Your task to perform on an android device: Open accessibility settings Image 0: 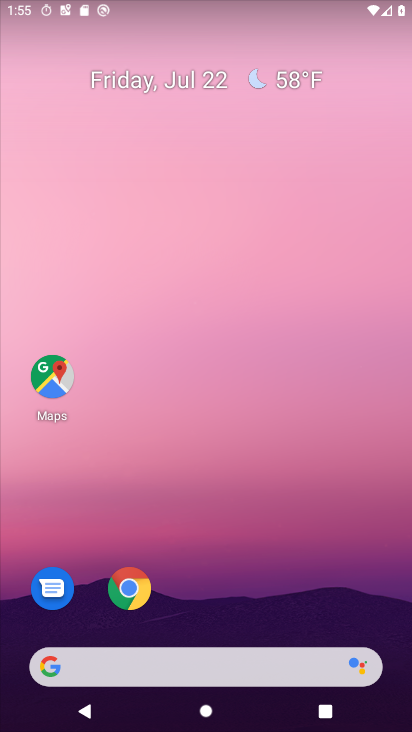
Step 0: press home button
Your task to perform on an android device: Open accessibility settings Image 1: 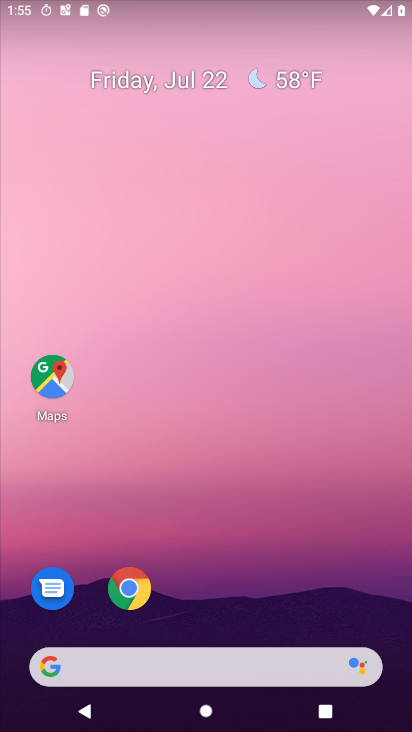
Step 1: drag from (254, 686) to (289, 317)
Your task to perform on an android device: Open accessibility settings Image 2: 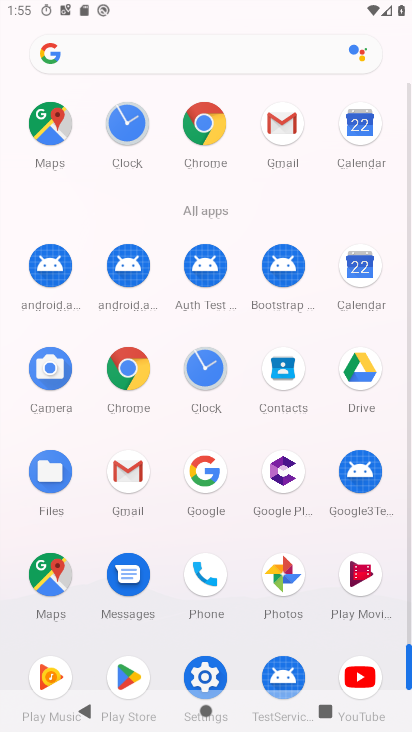
Step 2: click (198, 656)
Your task to perform on an android device: Open accessibility settings Image 3: 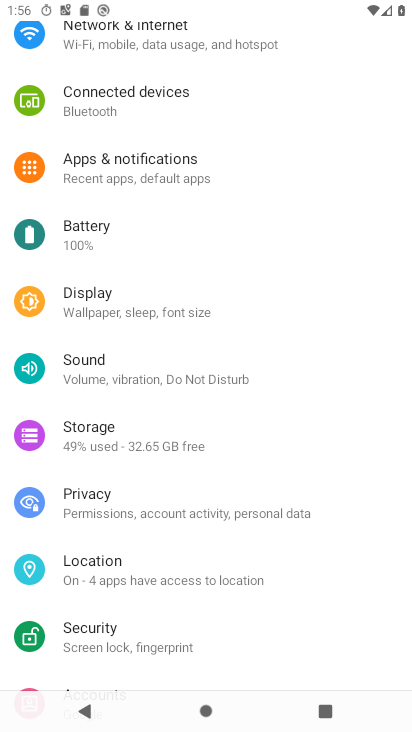
Step 3: drag from (37, 569) to (201, 113)
Your task to perform on an android device: Open accessibility settings Image 4: 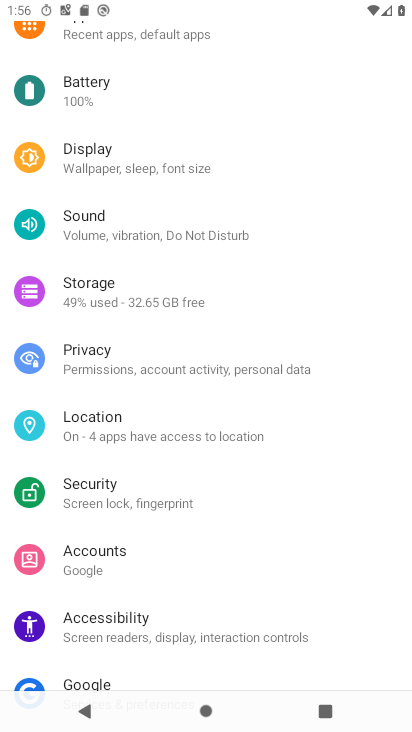
Step 4: click (103, 616)
Your task to perform on an android device: Open accessibility settings Image 5: 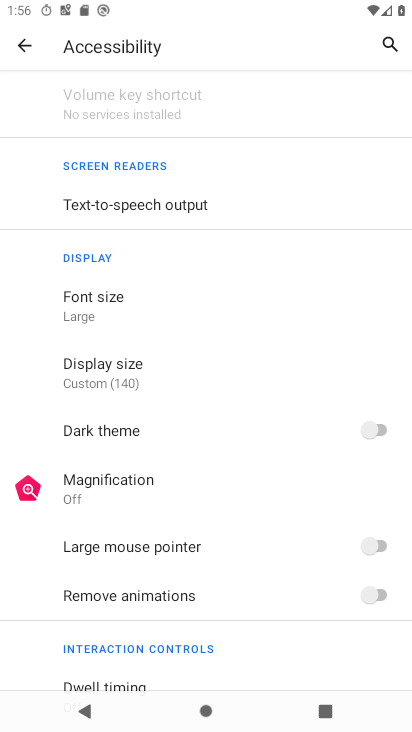
Step 5: task complete